Your task to perform on an android device: turn vacation reply on in the gmail app Image 0: 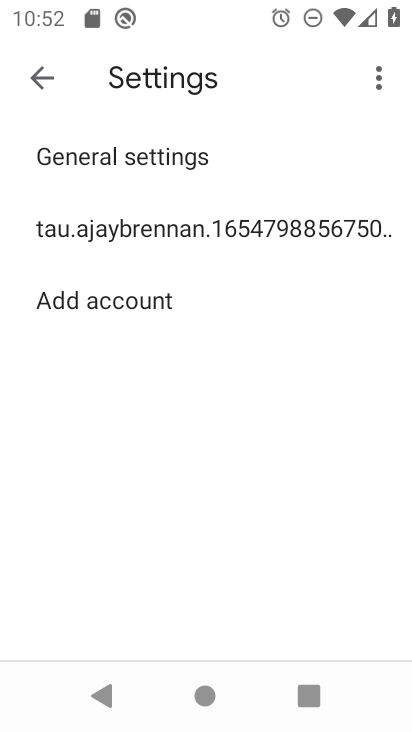
Step 0: click (181, 234)
Your task to perform on an android device: turn vacation reply on in the gmail app Image 1: 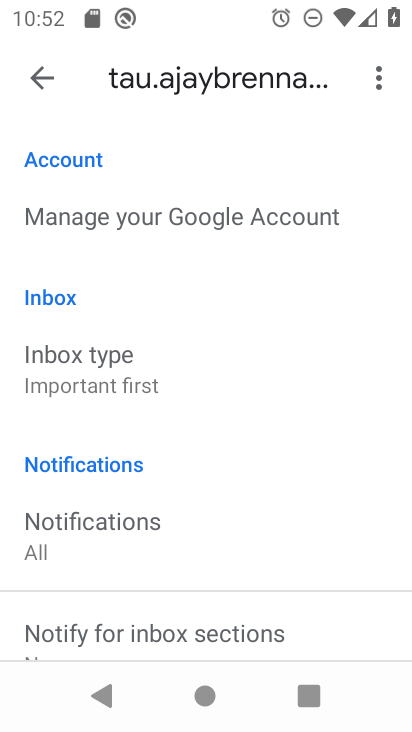
Step 1: drag from (140, 548) to (217, 120)
Your task to perform on an android device: turn vacation reply on in the gmail app Image 2: 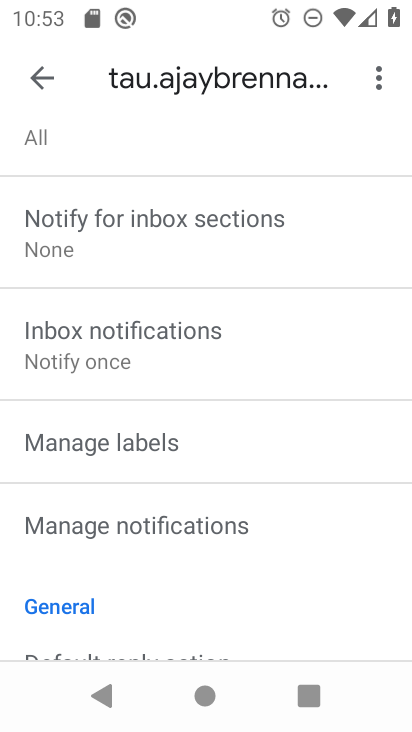
Step 2: drag from (171, 585) to (277, 156)
Your task to perform on an android device: turn vacation reply on in the gmail app Image 3: 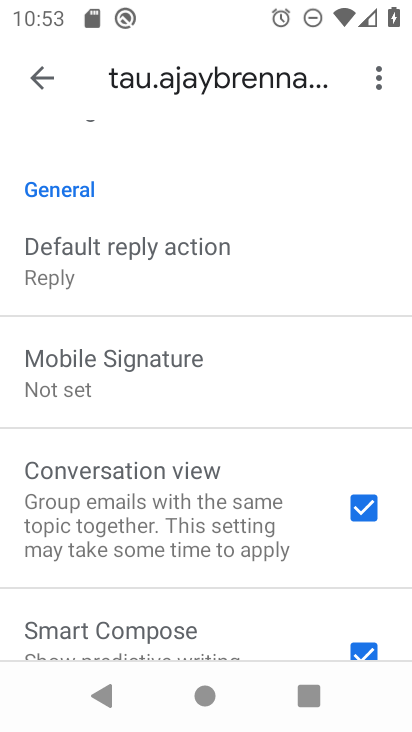
Step 3: drag from (180, 572) to (238, 199)
Your task to perform on an android device: turn vacation reply on in the gmail app Image 4: 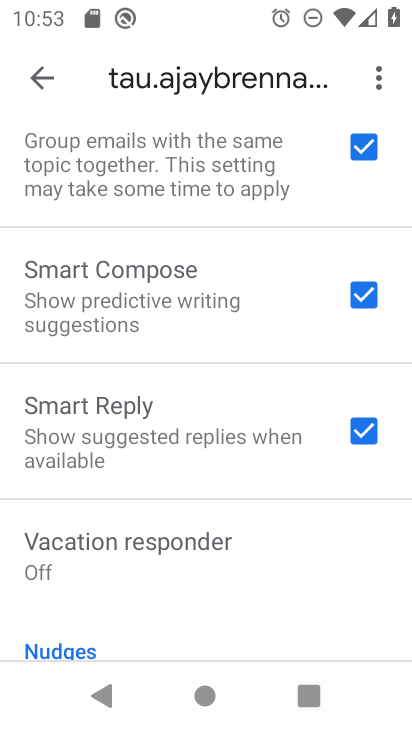
Step 4: click (174, 543)
Your task to perform on an android device: turn vacation reply on in the gmail app Image 5: 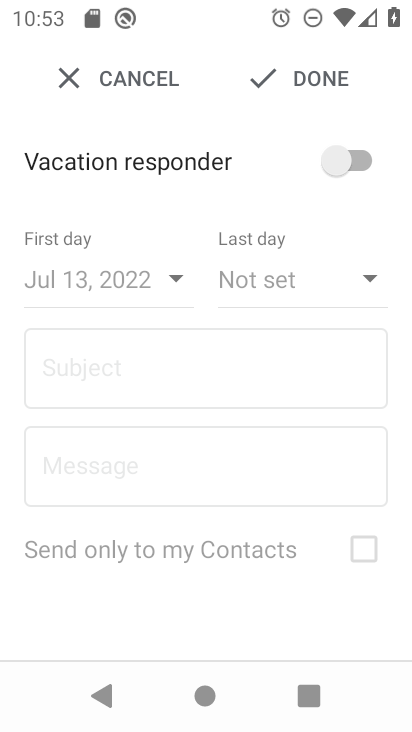
Step 5: click (341, 162)
Your task to perform on an android device: turn vacation reply on in the gmail app Image 6: 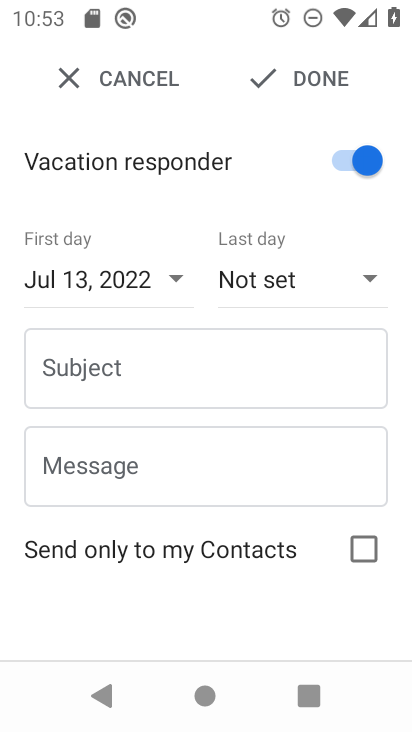
Step 6: task complete